Your task to perform on an android device: check the backup settings in the google photos Image 0: 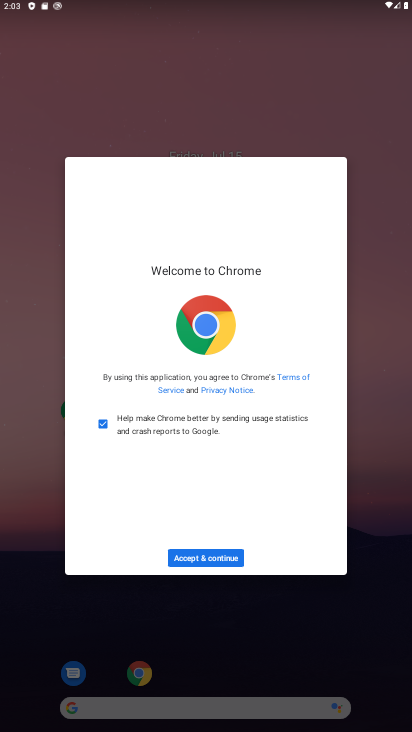
Step 0: press home button
Your task to perform on an android device: check the backup settings in the google photos Image 1: 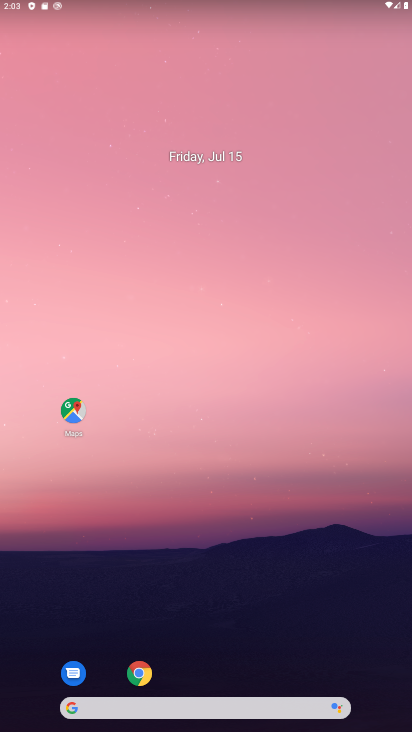
Step 1: drag from (183, 705) to (290, 137)
Your task to perform on an android device: check the backup settings in the google photos Image 2: 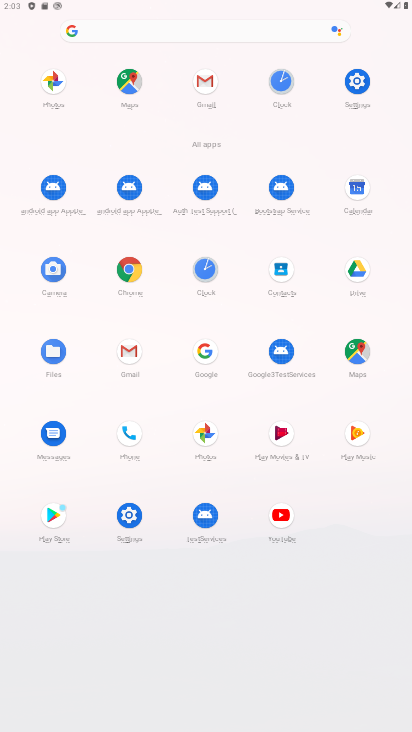
Step 2: click (195, 434)
Your task to perform on an android device: check the backup settings in the google photos Image 3: 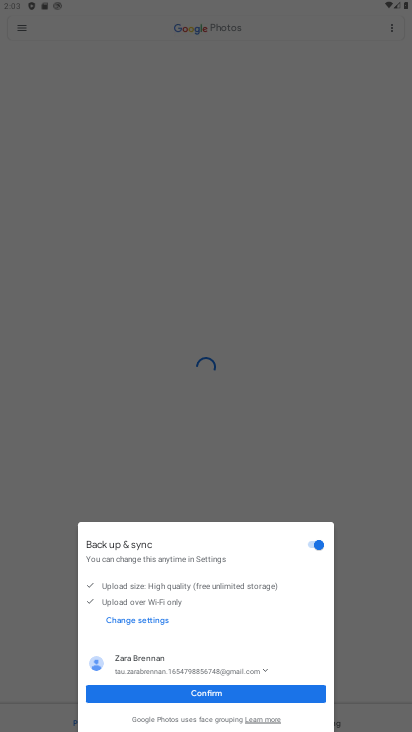
Step 3: click (222, 690)
Your task to perform on an android device: check the backup settings in the google photos Image 4: 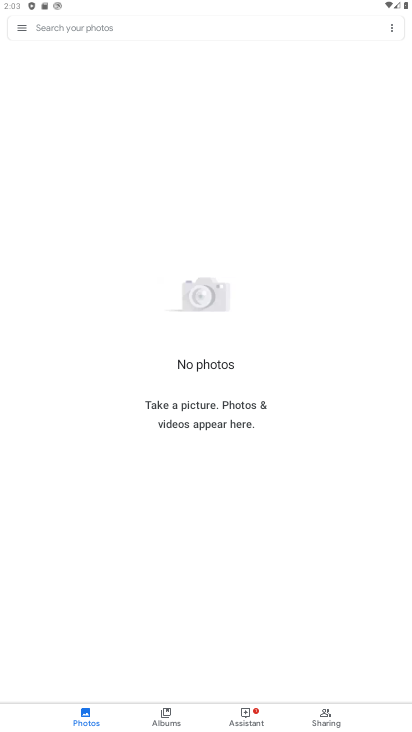
Step 4: click (17, 31)
Your task to perform on an android device: check the backup settings in the google photos Image 5: 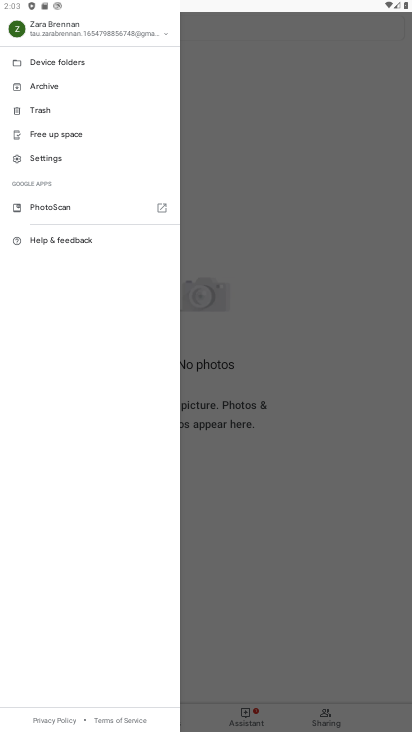
Step 5: click (79, 168)
Your task to perform on an android device: check the backup settings in the google photos Image 6: 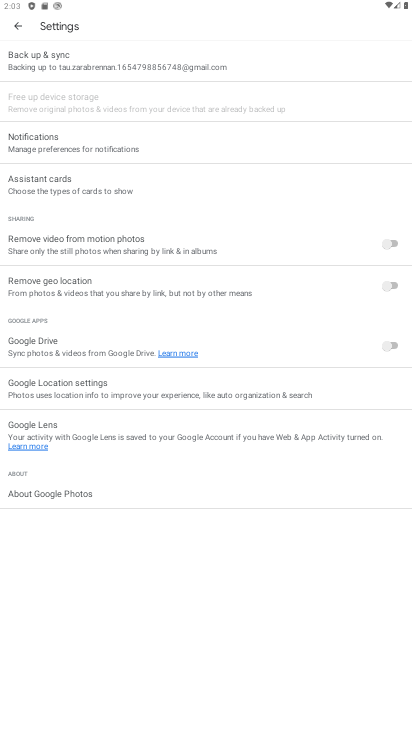
Step 6: click (184, 66)
Your task to perform on an android device: check the backup settings in the google photos Image 7: 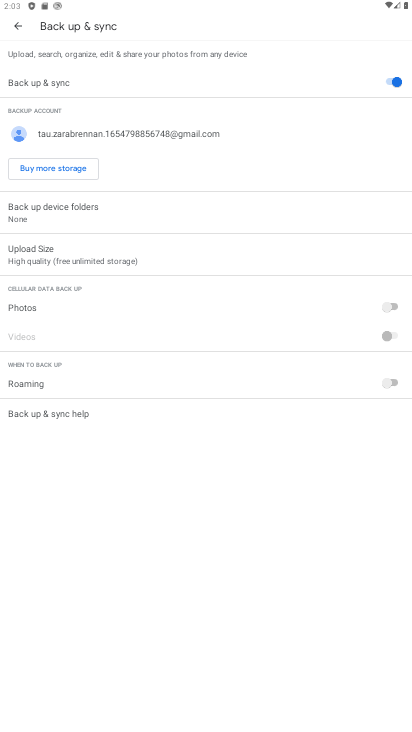
Step 7: task complete